Your task to perform on an android device: change the clock display to analog Image 0: 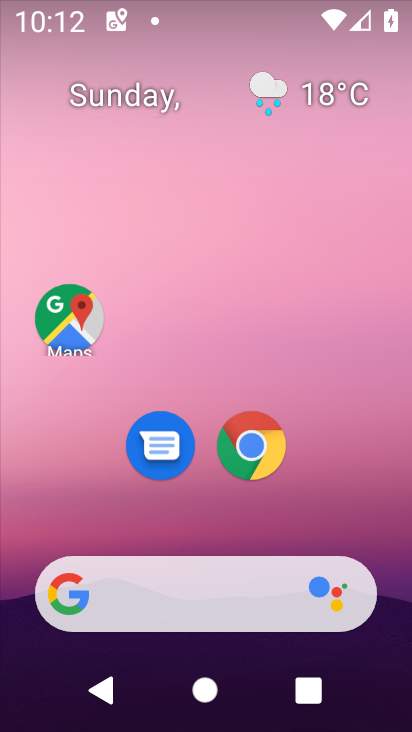
Step 0: press home button
Your task to perform on an android device: change the clock display to analog Image 1: 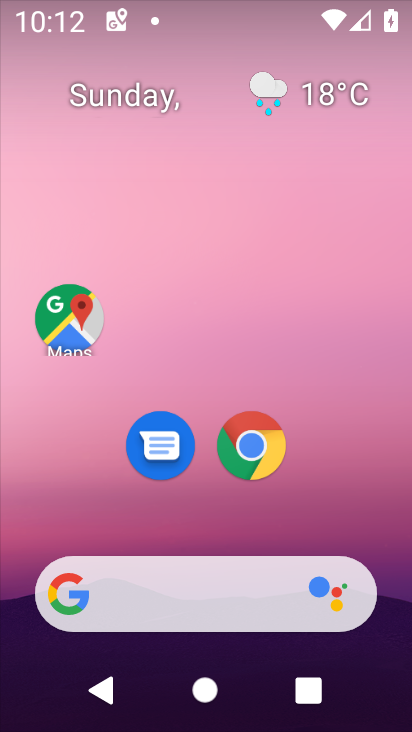
Step 1: press home button
Your task to perform on an android device: change the clock display to analog Image 2: 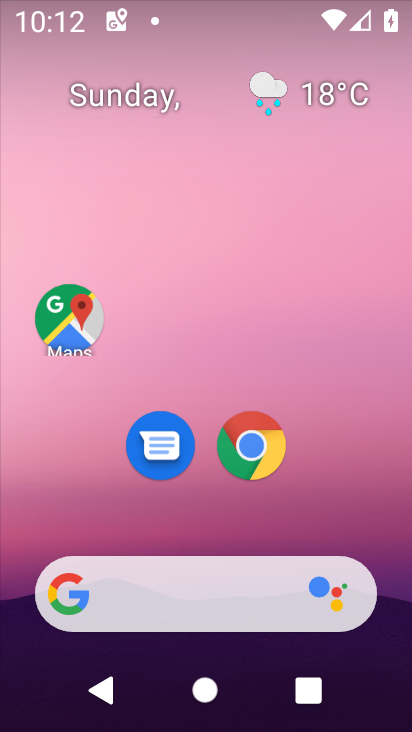
Step 2: drag from (209, 531) to (264, 7)
Your task to perform on an android device: change the clock display to analog Image 3: 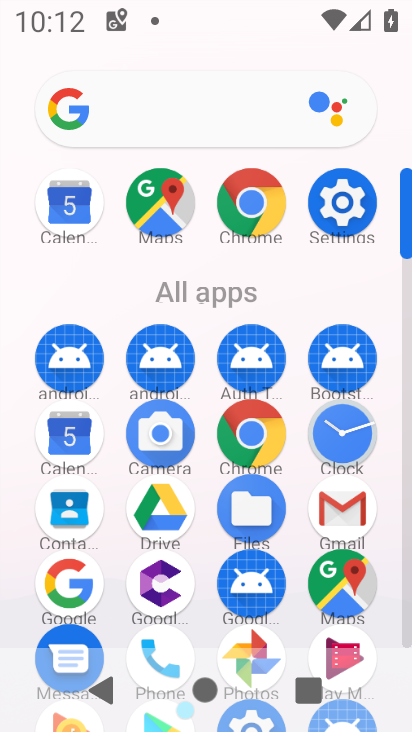
Step 3: click (337, 425)
Your task to perform on an android device: change the clock display to analog Image 4: 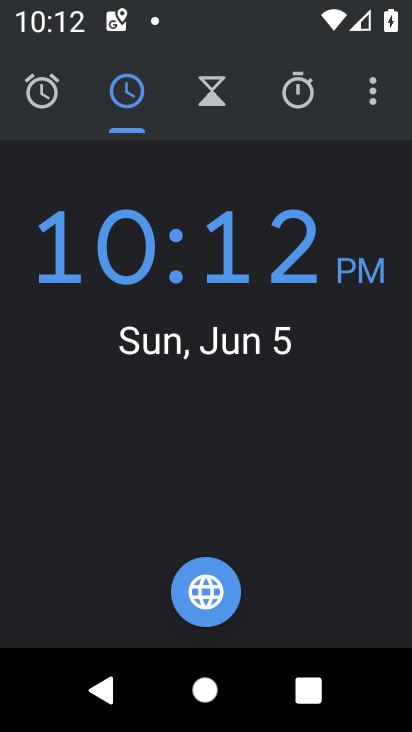
Step 4: click (369, 86)
Your task to perform on an android device: change the clock display to analog Image 5: 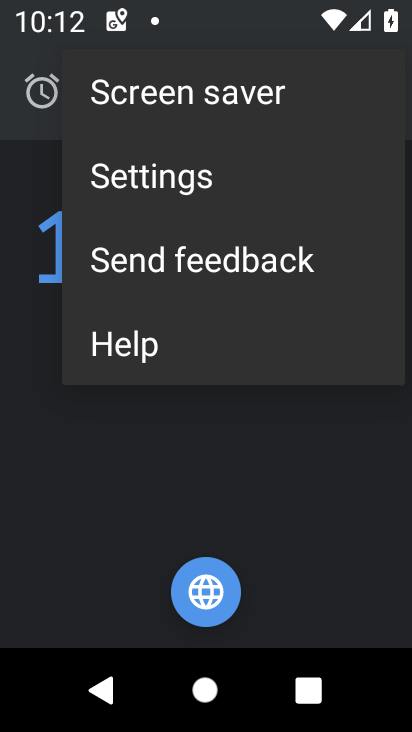
Step 5: click (244, 179)
Your task to perform on an android device: change the clock display to analog Image 6: 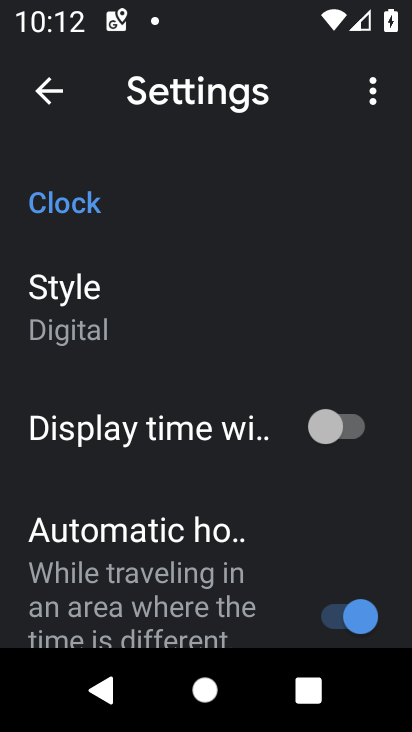
Step 6: click (137, 307)
Your task to perform on an android device: change the clock display to analog Image 7: 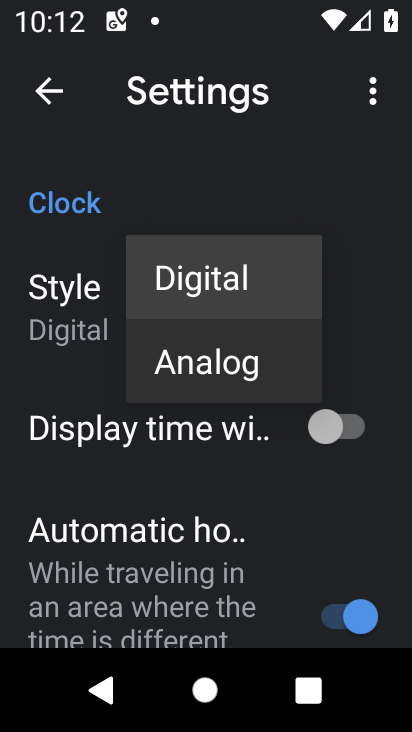
Step 7: click (238, 353)
Your task to perform on an android device: change the clock display to analog Image 8: 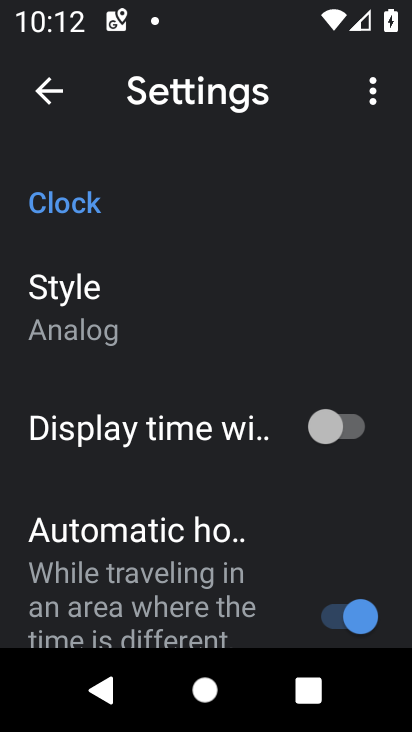
Step 8: task complete